Your task to perform on an android device: manage bookmarks in the chrome app Image 0: 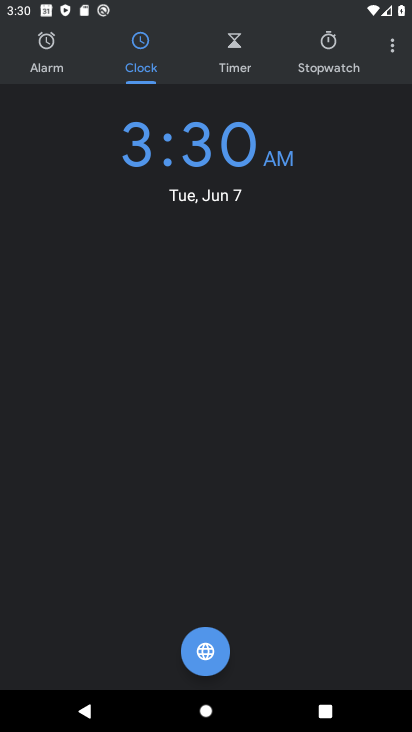
Step 0: press home button
Your task to perform on an android device: manage bookmarks in the chrome app Image 1: 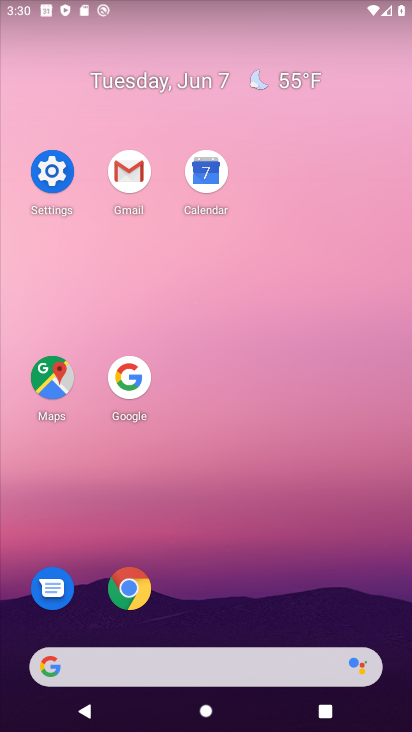
Step 1: click (129, 590)
Your task to perform on an android device: manage bookmarks in the chrome app Image 2: 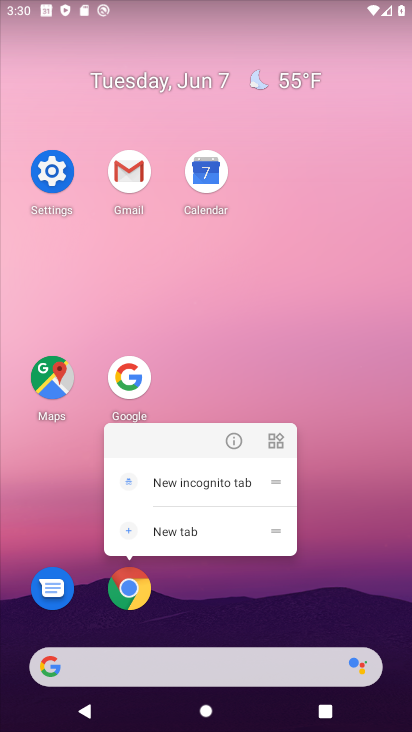
Step 2: click (143, 586)
Your task to perform on an android device: manage bookmarks in the chrome app Image 3: 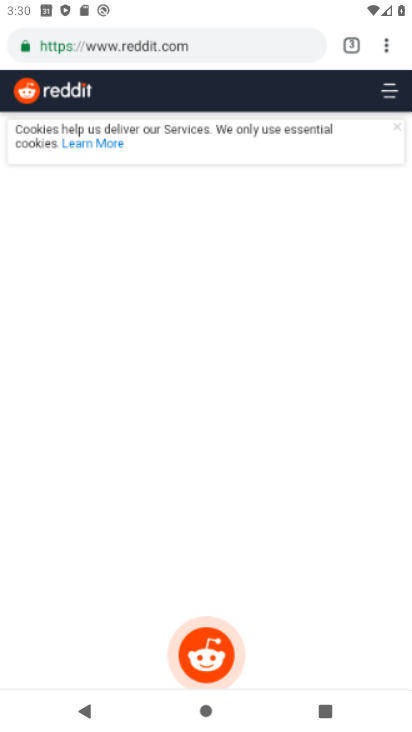
Step 3: click (390, 51)
Your task to perform on an android device: manage bookmarks in the chrome app Image 4: 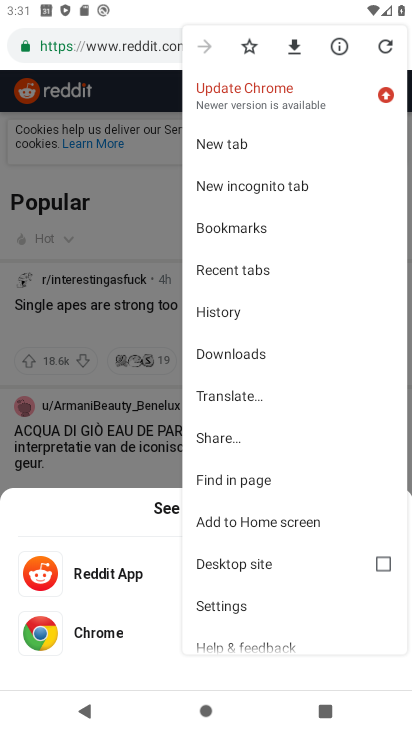
Step 4: click (245, 235)
Your task to perform on an android device: manage bookmarks in the chrome app Image 5: 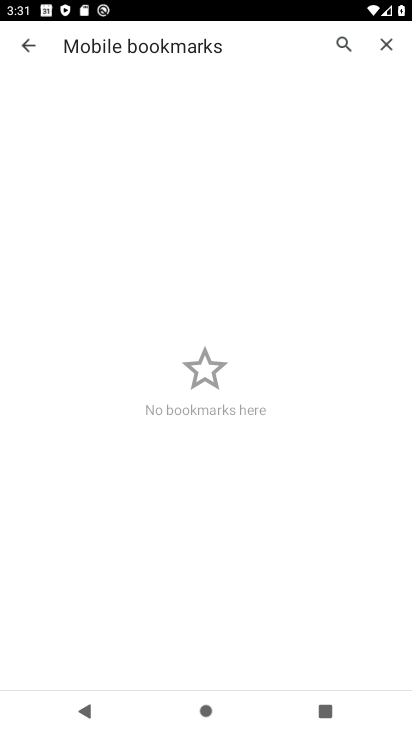
Step 5: task complete